Your task to perform on an android device: turn on airplane mode Image 0: 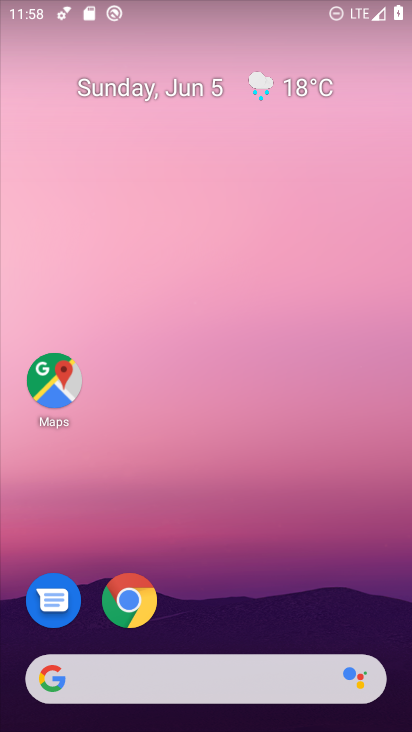
Step 0: drag from (234, 610) to (238, 169)
Your task to perform on an android device: turn on airplane mode Image 1: 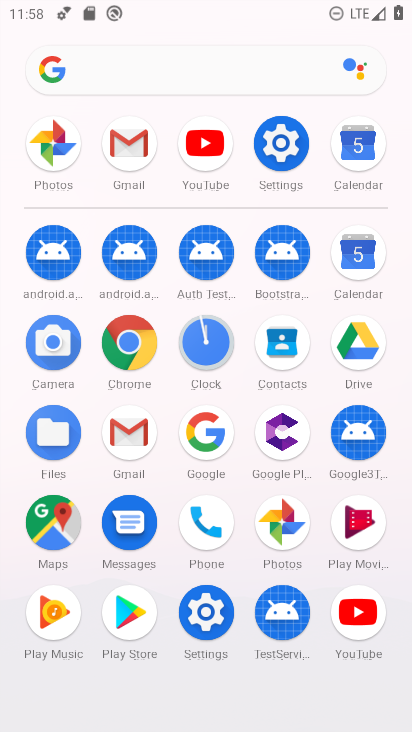
Step 1: click (266, 161)
Your task to perform on an android device: turn on airplane mode Image 2: 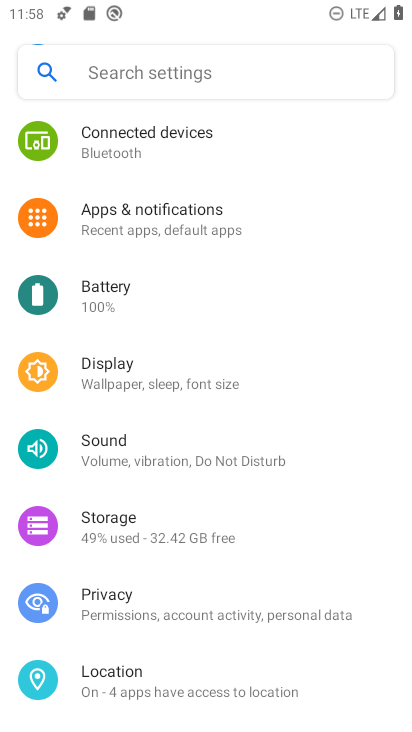
Step 2: drag from (198, 198) to (233, 575)
Your task to perform on an android device: turn on airplane mode Image 3: 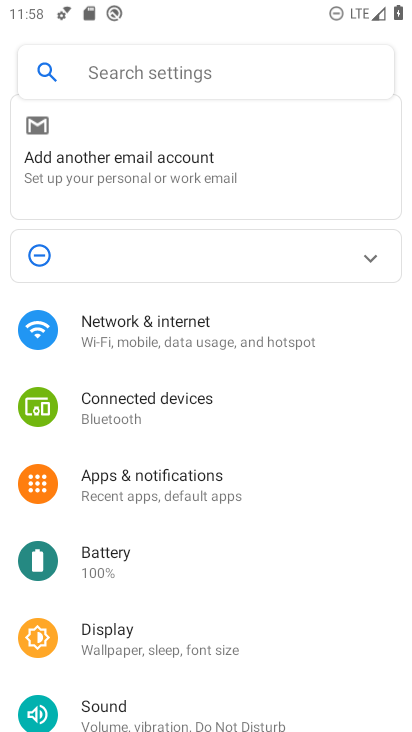
Step 3: click (198, 327)
Your task to perform on an android device: turn on airplane mode Image 4: 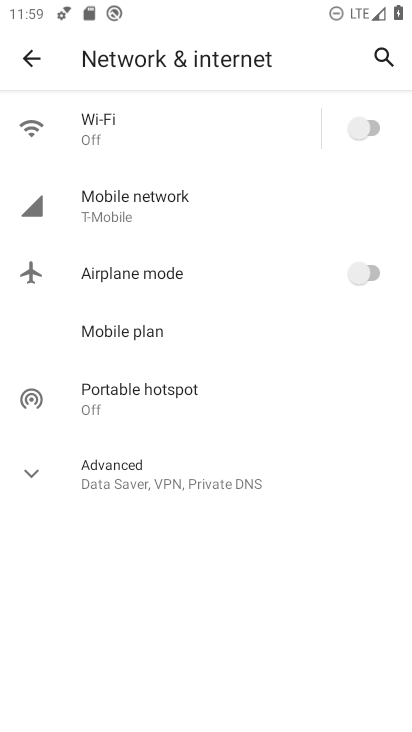
Step 4: click (365, 281)
Your task to perform on an android device: turn on airplane mode Image 5: 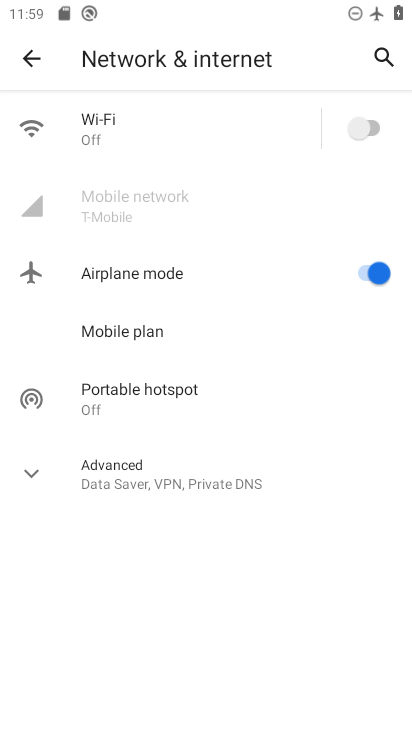
Step 5: task complete